Your task to perform on an android device: What's on my calendar today? Image 0: 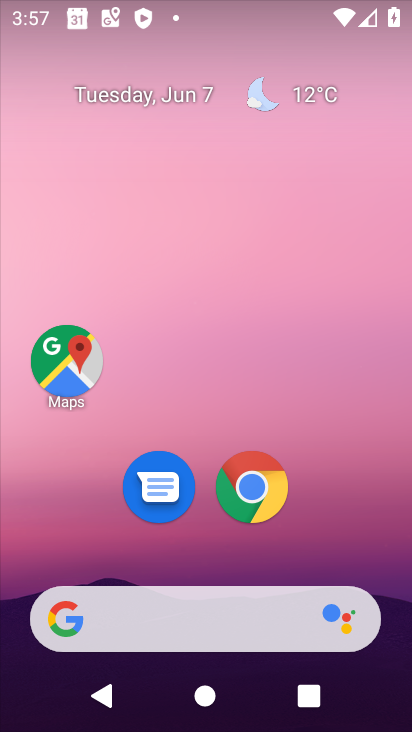
Step 0: drag from (180, 575) to (235, 66)
Your task to perform on an android device: What's on my calendar today? Image 1: 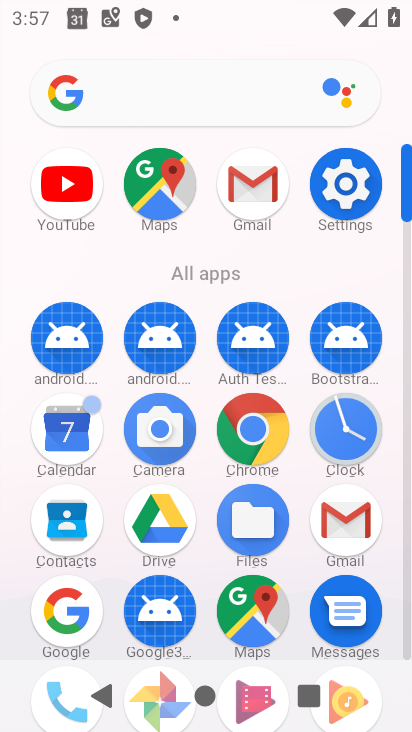
Step 1: click (59, 439)
Your task to perform on an android device: What's on my calendar today? Image 2: 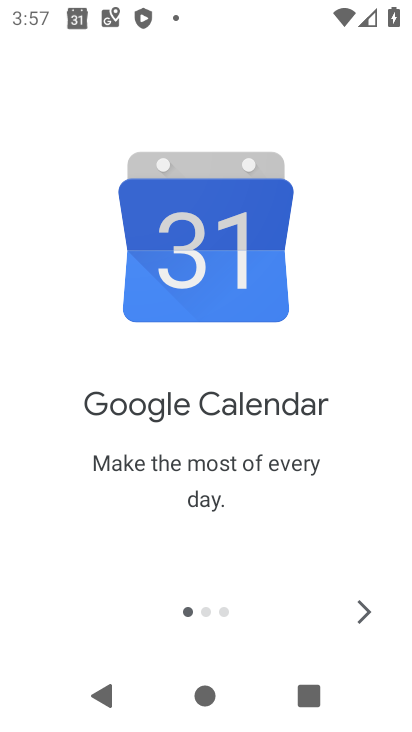
Step 2: click (362, 608)
Your task to perform on an android device: What's on my calendar today? Image 3: 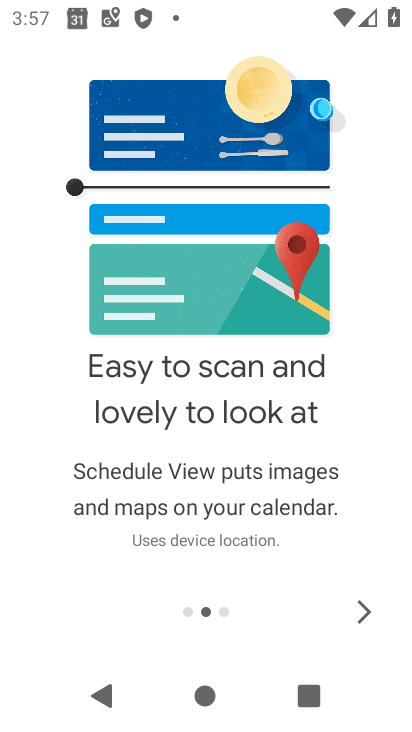
Step 3: click (362, 608)
Your task to perform on an android device: What's on my calendar today? Image 4: 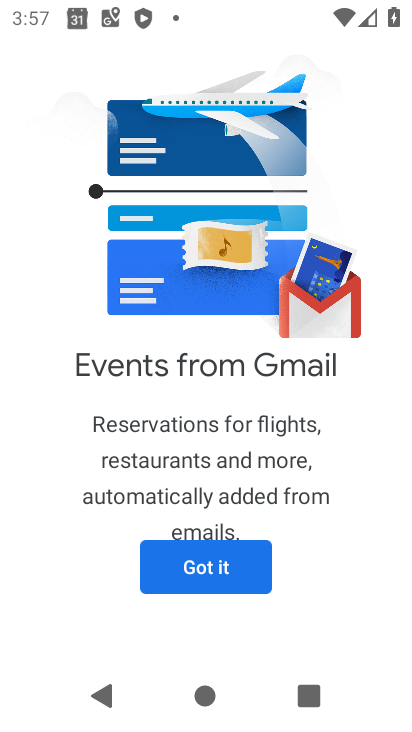
Step 4: click (194, 564)
Your task to perform on an android device: What's on my calendar today? Image 5: 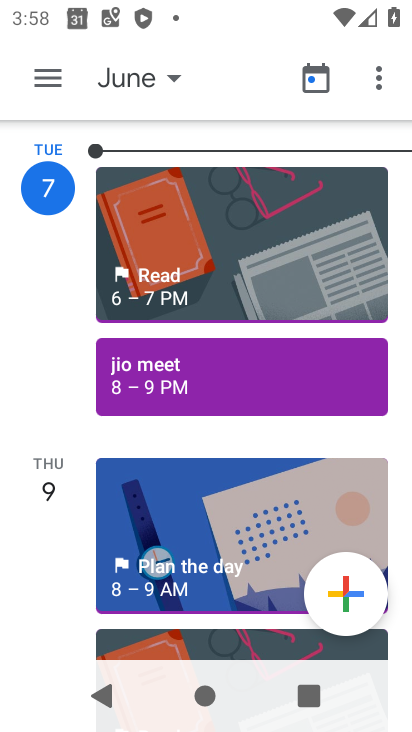
Step 5: click (224, 391)
Your task to perform on an android device: What's on my calendar today? Image 6: 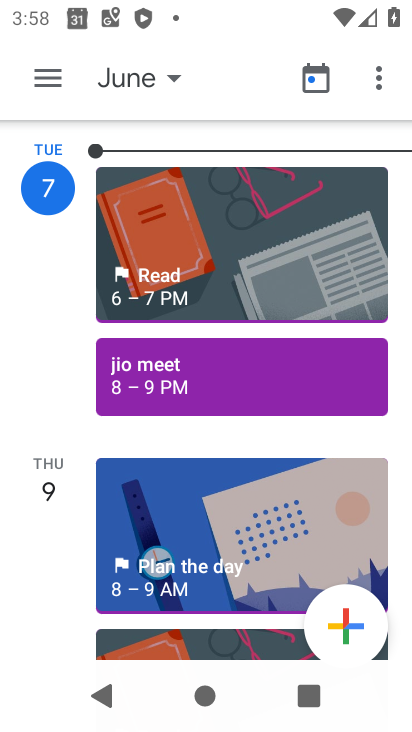
Step 6: task complete